Your task to perform on an android device: toggle data saver in the chrome app Image 0: 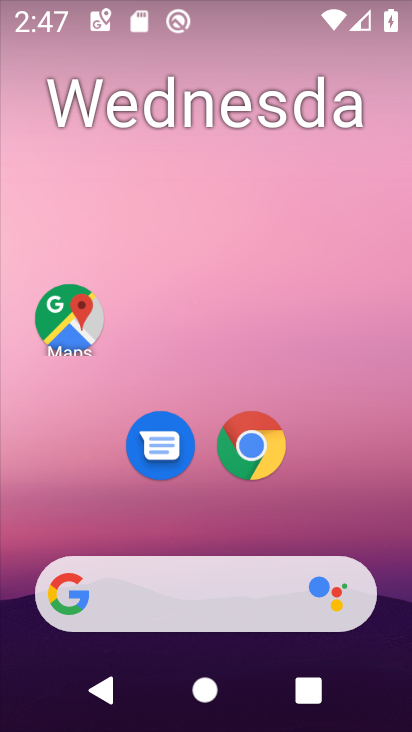
Step 0: click (275, 451)
Your task to perform on an android device: toggle data saver in the chrome app Image 1: 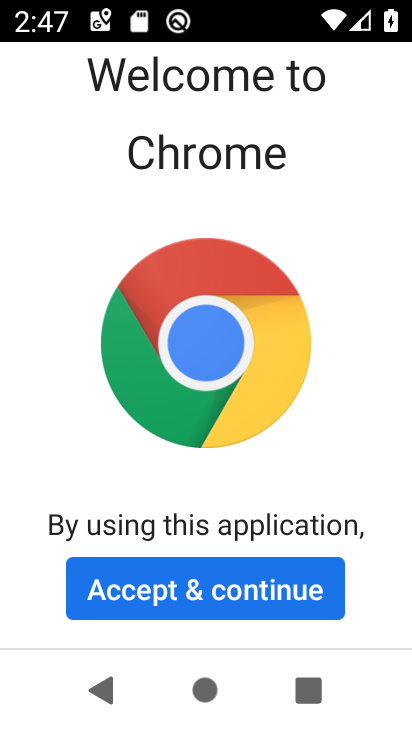
Step 1: click (280, 559)
Your task to perform on an android device: toggle data saver in the chrome app Image 2: 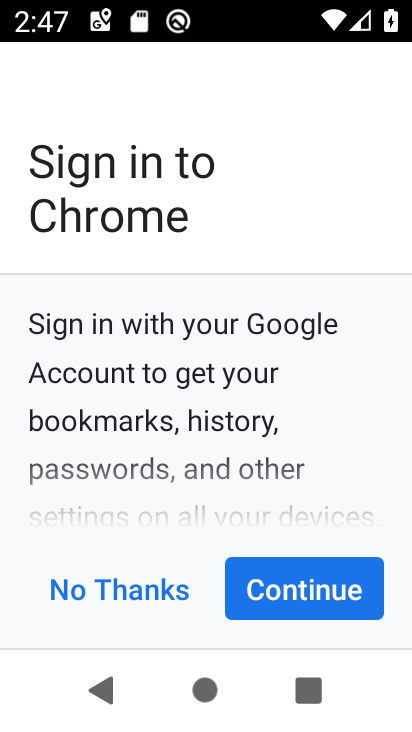
Step 2: click (343, 584)
Your task to perform on an android device: toggle data saver in the chrome app Image 3: 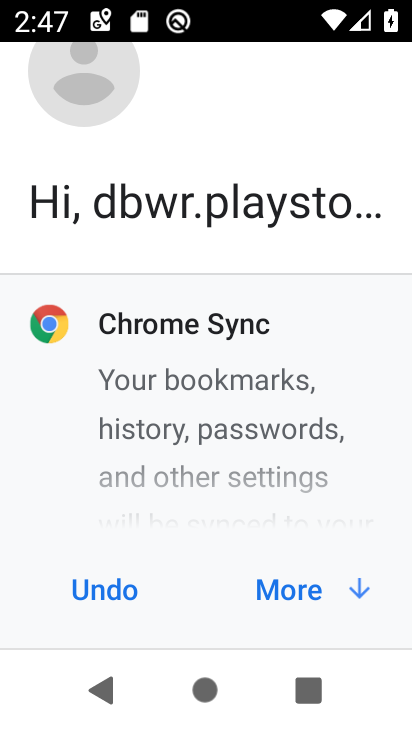
Step 3: click (336, 584)
Your task to perform on an android device: toggle data saver in the chrome app Image 4: 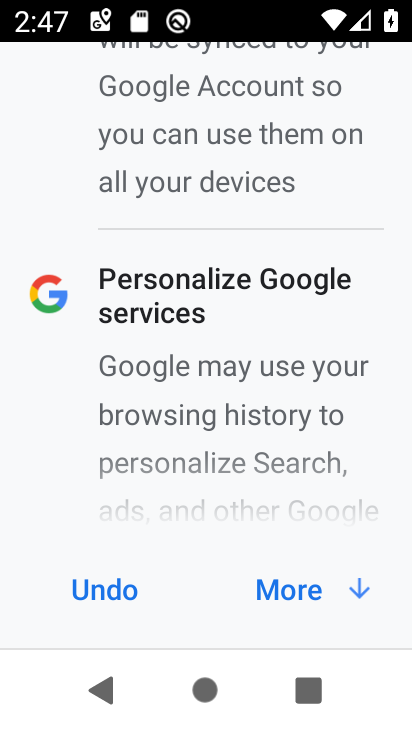
Step 4: click (336, 584)
Your task to perform on an android device: toggle data saver in the chrome app Image 5: 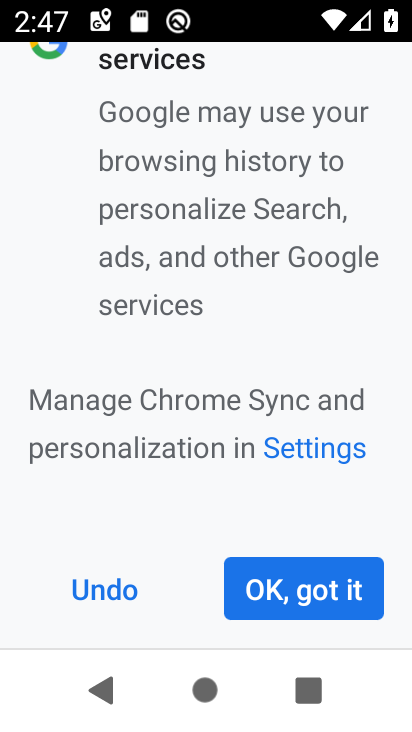
Step 5: click (336, 584)
Your task to perform on an android device: toggle data saver in the chrome app Image 6: 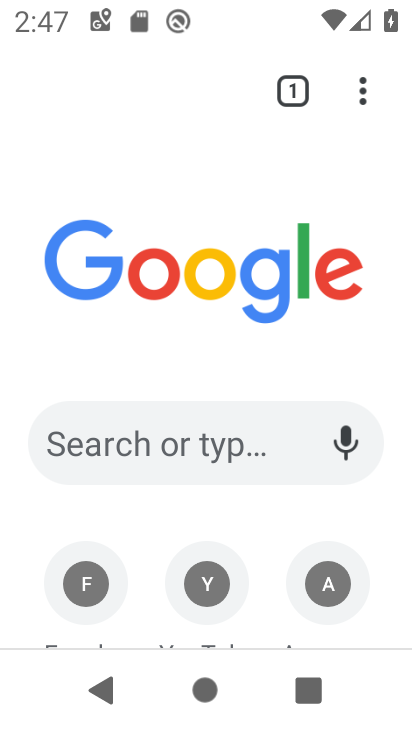
Step 6: drag from (366, 101) to (199, 482)
Your task to perform on an android device: toggle data saver in the chrome app Image 7: 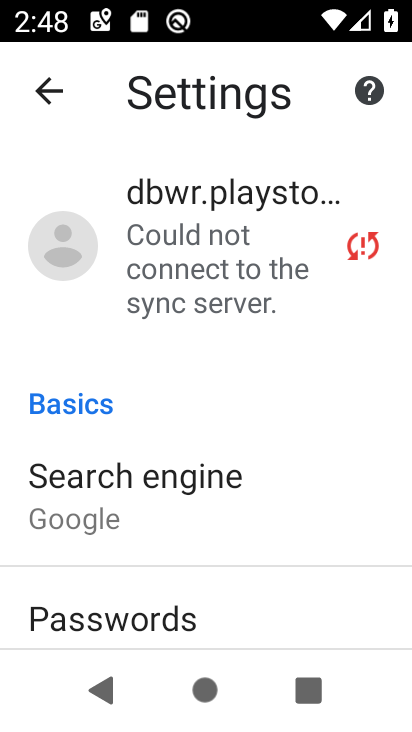
Step 7: drag from (229, 580) to (332, 147)
Your task to perform on an android device: toggle data saver in the chrome app Image 8: 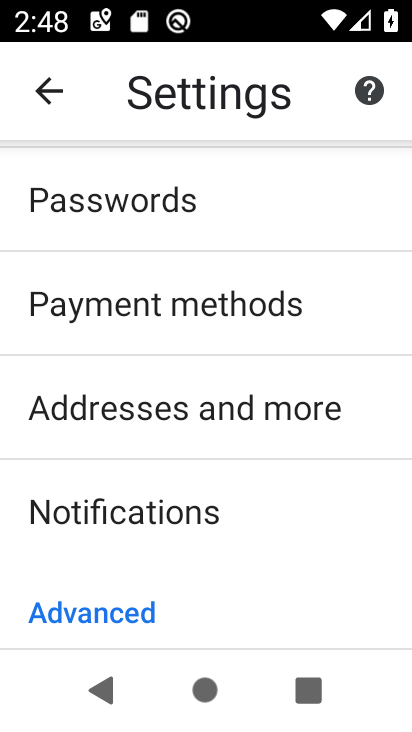
Step 8: drag from (253, 552) to (342, 239)
Your task to perform on an android device: toggle data saver in the chrome app Image 9: 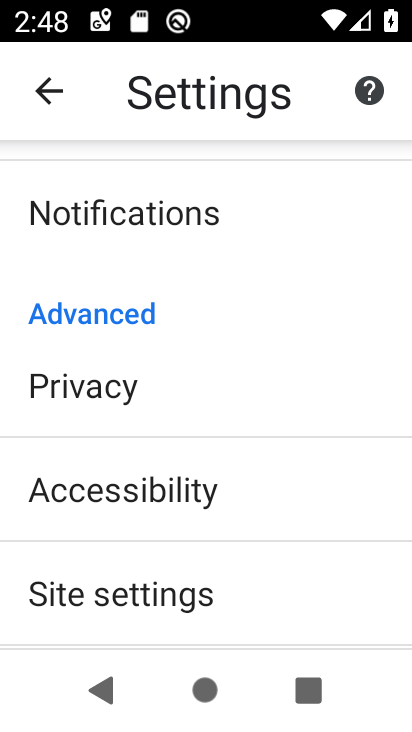
Step 9: drag from (214, 626) to (283, 329)
Your task to perform on an android device: toggle data saver in the chrome app Image 10: 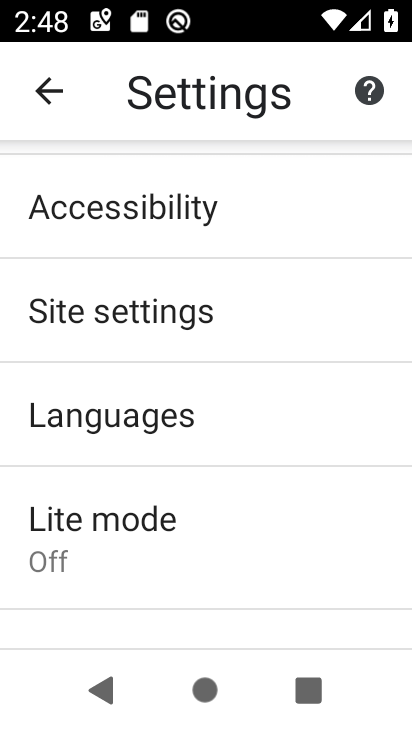
Step 10: click (231, 528)
Your task to perform on an android device: toggle data saver in the chrome app Image 11: 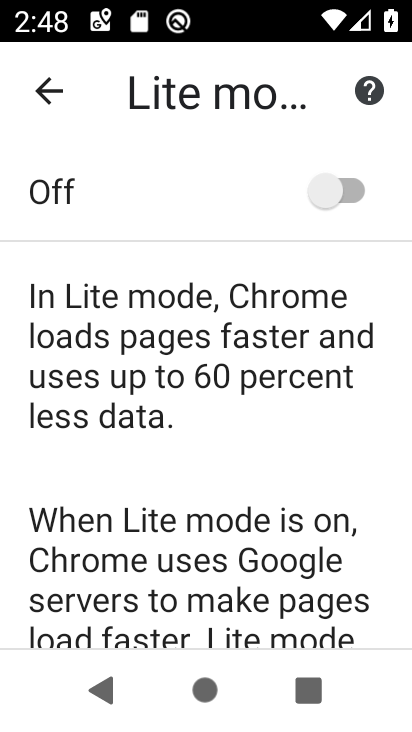
Step 11: click (363, 192)
Your task to perform on an android device: toggle data saver in the chrome app Image 12: 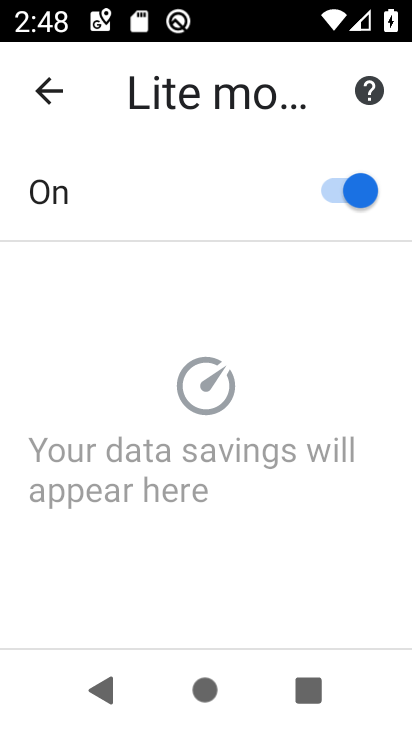
Step 12: task complete